Your task to perform on an android device: Open the calendar and show me this week's events? Image 0: 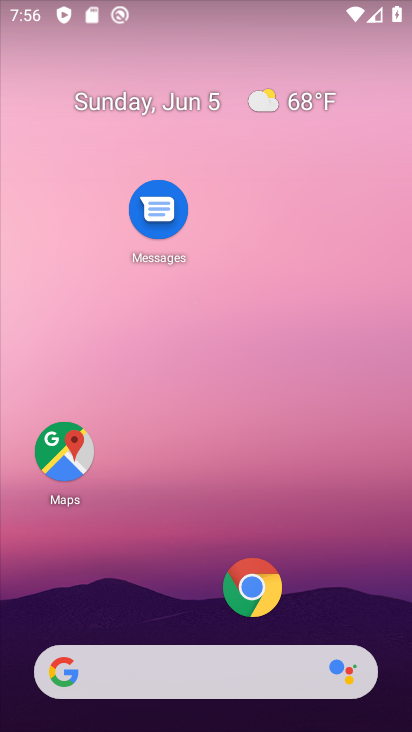
Step 0: drag from (200, 621) to (235, 56)
Your task to perform on an android device: Open the calendar and show me this week's events? Image 1: 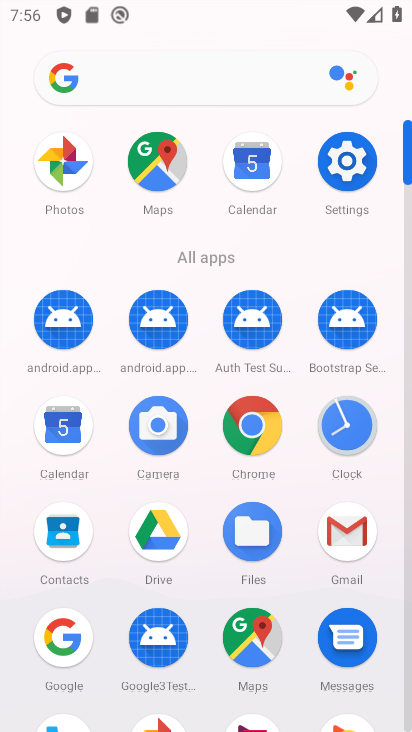
Step 1: click (62, 418)
Your task to perform on an android device: Open the calendar and show me this week's events? Image 2: 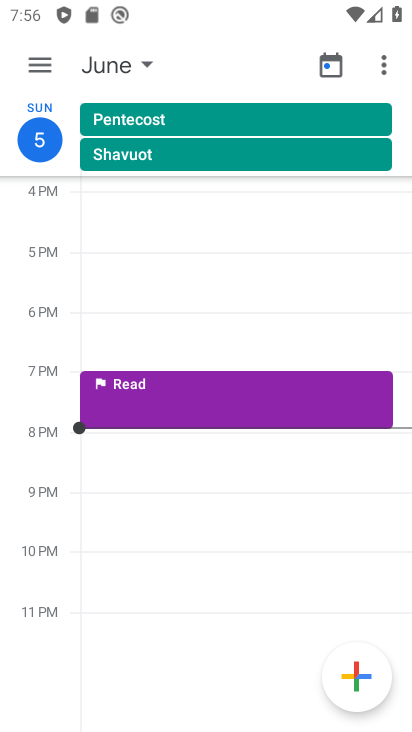
Step 2: click (59, 157)
Your task to perform on an android device: Open the calendar and show me this week's events? Image 3: 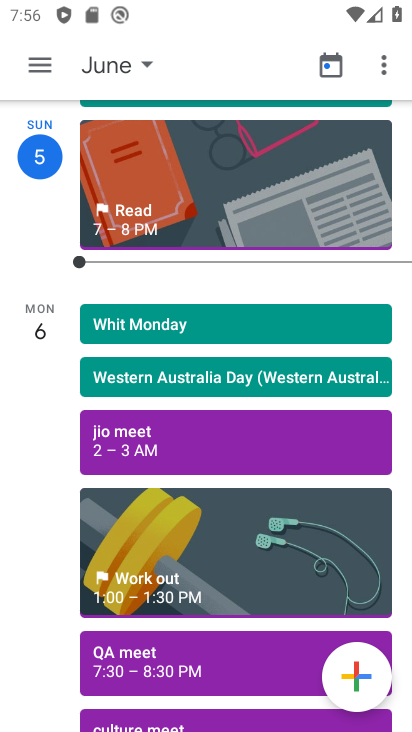
Step 3: task complete